Your task to perform on an android device: Is it going to rain today? Image 0: 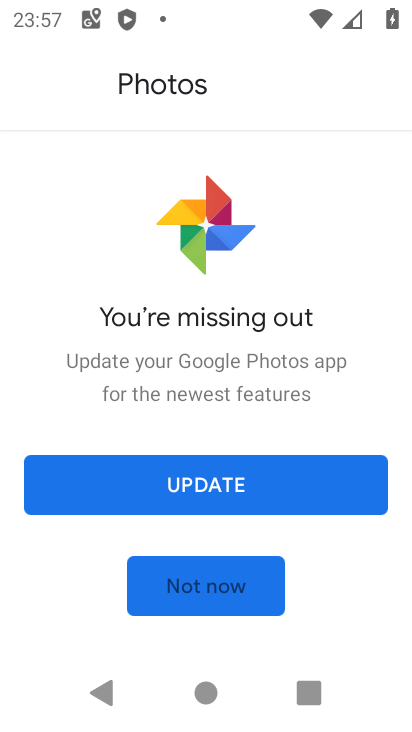
Step 0: press home button
Your task to perform on an android device: Is it going to rain today? Image 1: 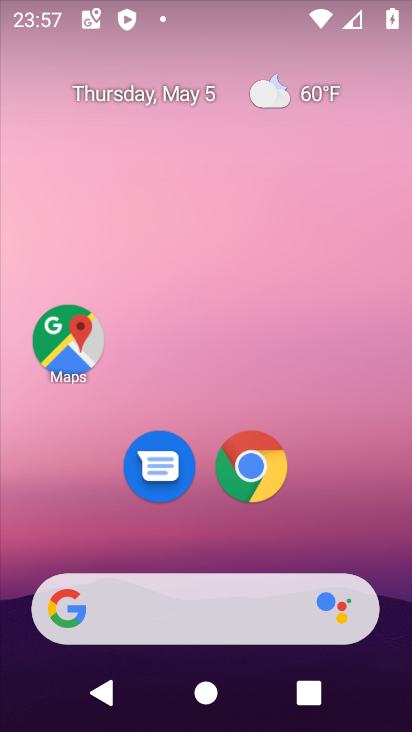
Step 1: drag from (178, 571) to (287, 169)
Your task to perform on an android device: Is it going to rain today? Image 2: 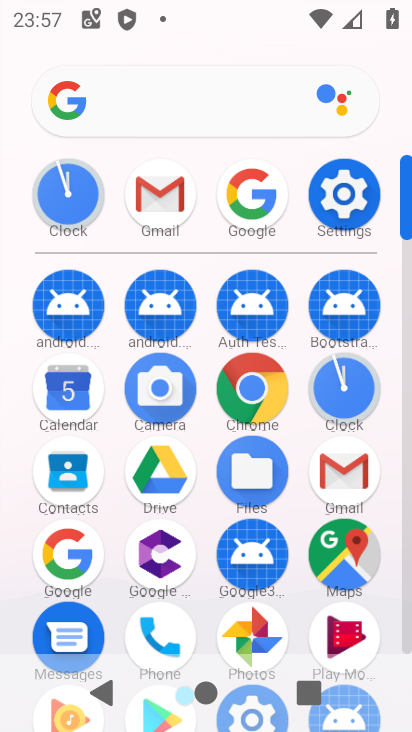
Step 2: click (55, 548)
Your task to perform on an android device: Is it going to rain today? Image 3: 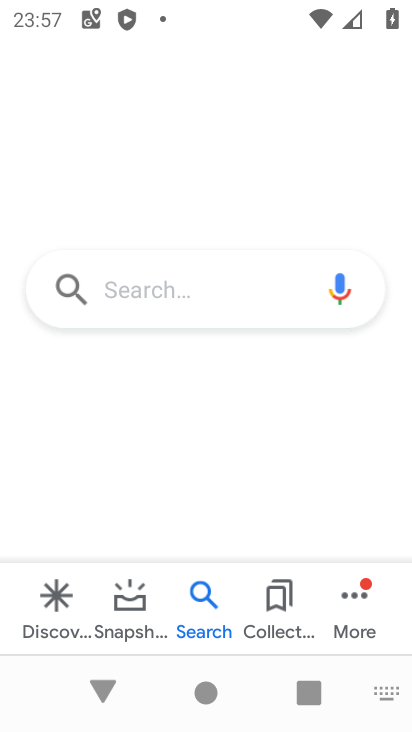
Step 3: click (184, 292)
Your task to perform on an android device: Is it going to rain today? Image 4: 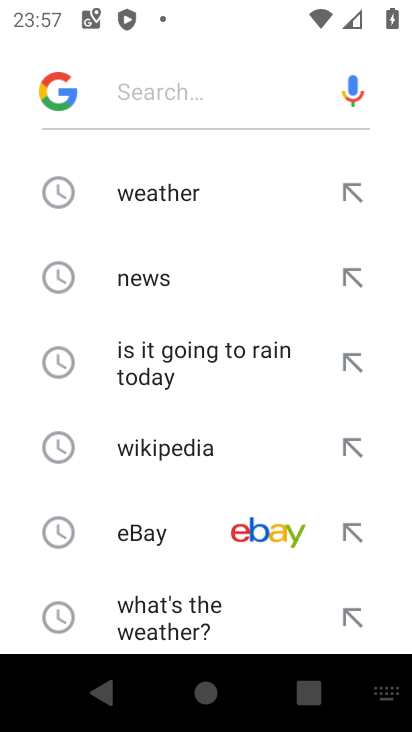
Step 4: click (201, 370)
Your task to perform on an android device: Is it going to rain today? Image 5: 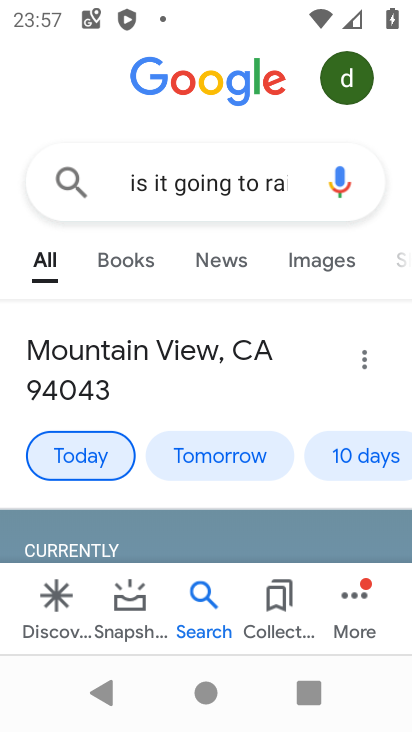
Step 5: task complete